Your task to perform on an android device: Search for the best custom wallets on Etsy. Image 0: 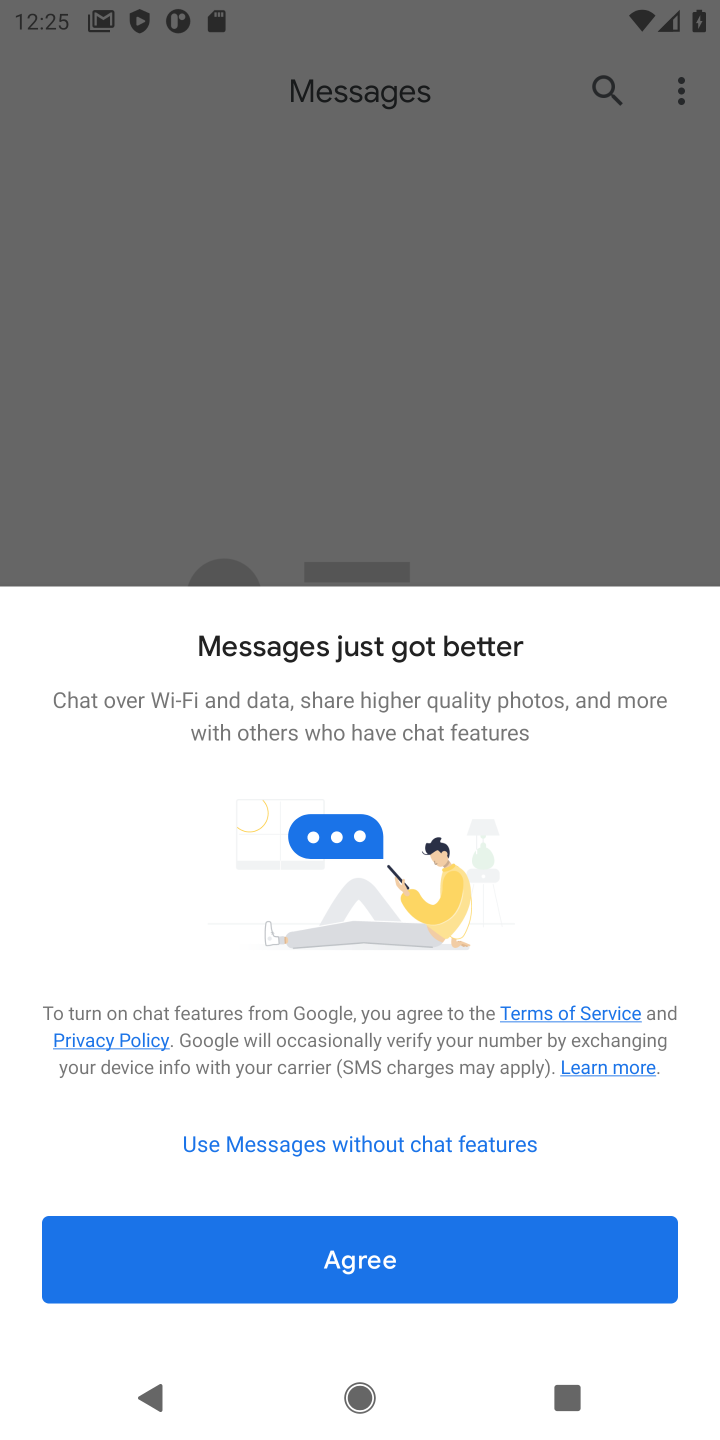
Step 0: task complete